Your task to perform on an android device: Search for "amazon basics triple a" on costco.com, select the first entry, and add it to the cart. Image 0: 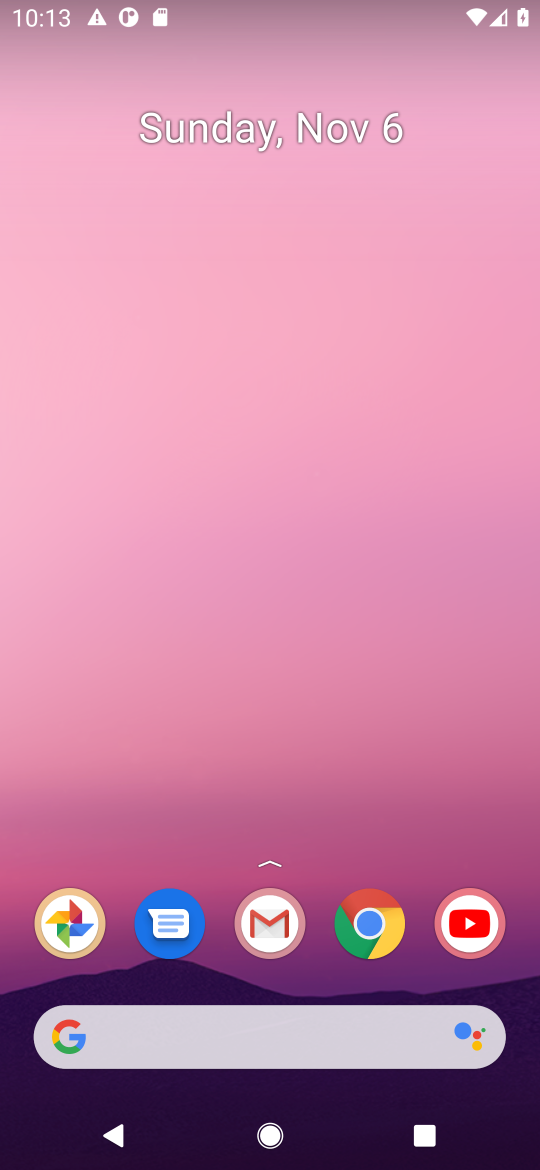
Step 0: click (377, 934)
Your task to perform on an android device: Search for "amazon basics triple a" on costco.com, select the first entry, and add it to the cart. Image 1: 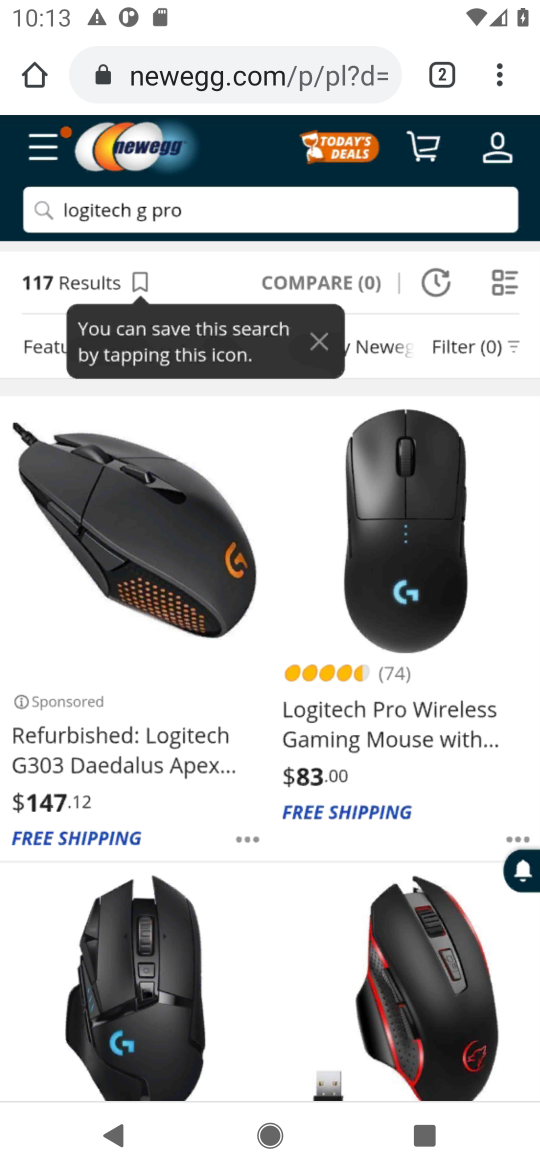
Step 1: click (200, 77)
Your task to perform on an android device: Search for "amazon basics triple a" on costco.com, select the first entry, and add it to the cart. Image 2: 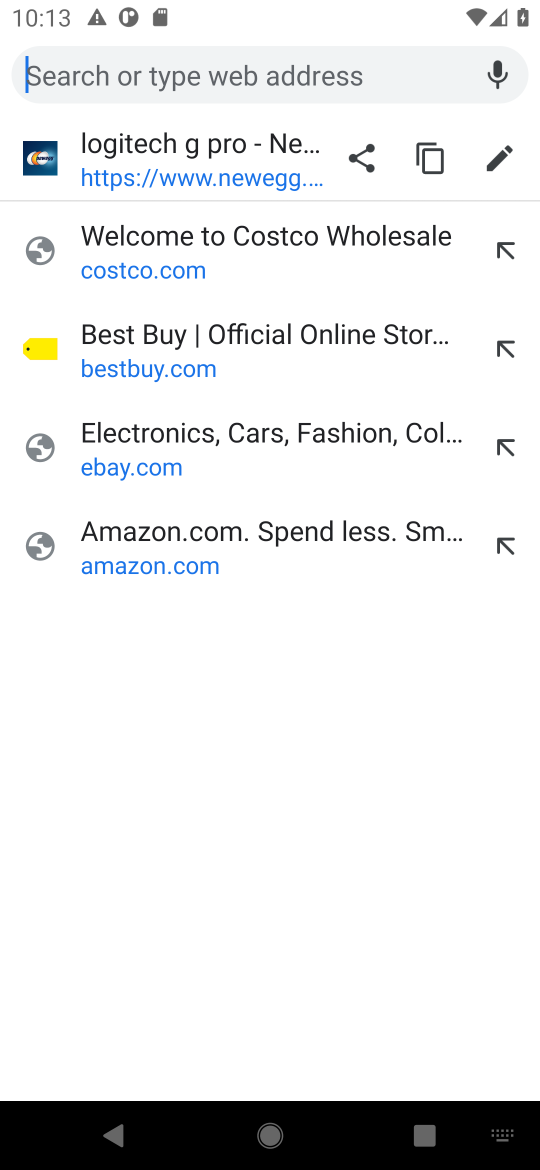
Step 2: click (143, 280)
Your task to perform on an android device: Search for "amazon basics triple a" on costco.com, select the first entry, and add it to the cart. Image 3: 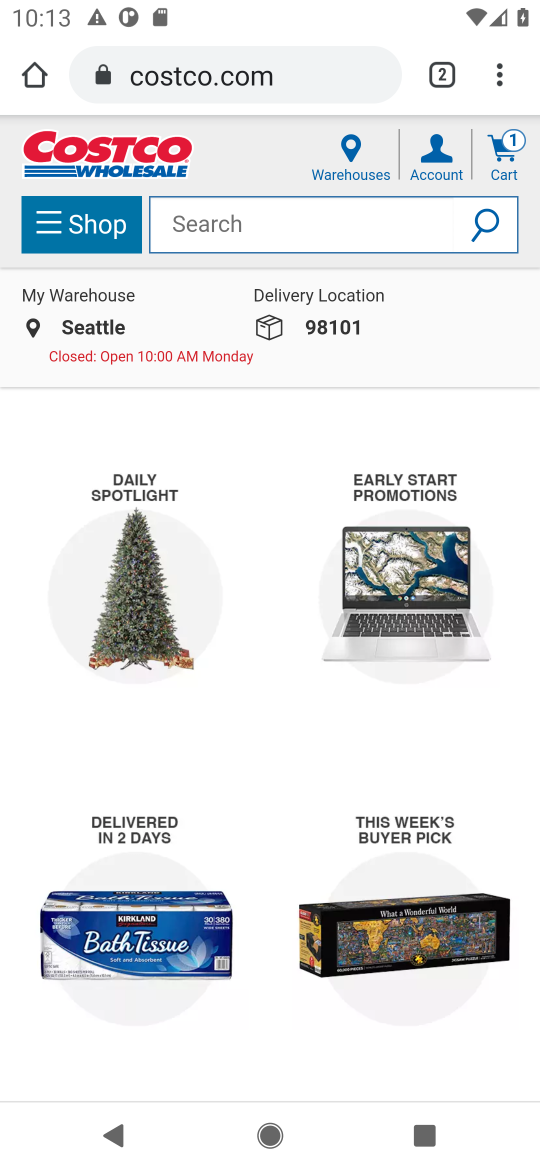
Step 3: click (305, 205)
Your task to perform on an android device: Search for "amazon basics triple a" on costco.com, select the first entry, and add it to the cart. Image 4: 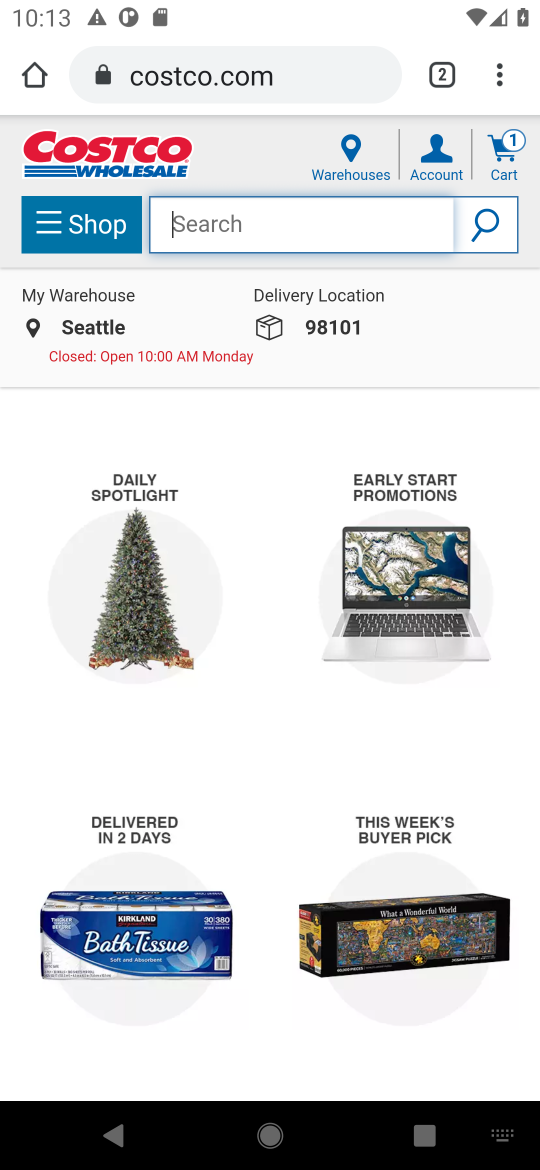
Step 4: type "amazon basics triple a"
Your task to perform on an android device: Search for "amazon basics triple a" on costco.com, select the first entry, and add it to the cart. Image 5: 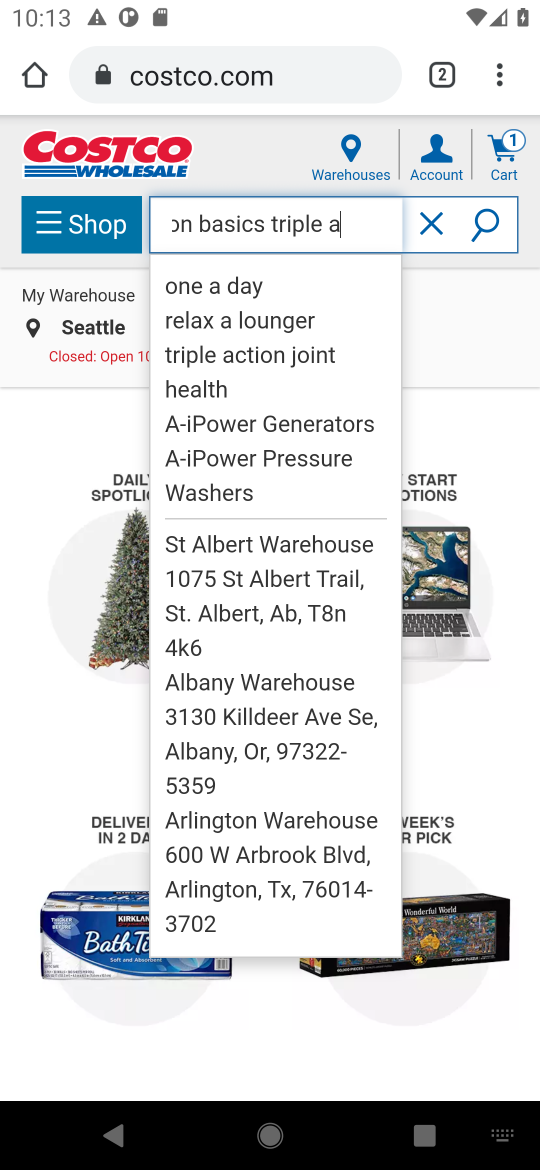
Step 5: click (482, 226)
Your task to perform on an android device: Search for "amazon basics triple a" on costco.com, select the first entry, and add it to the cart. Image 6: 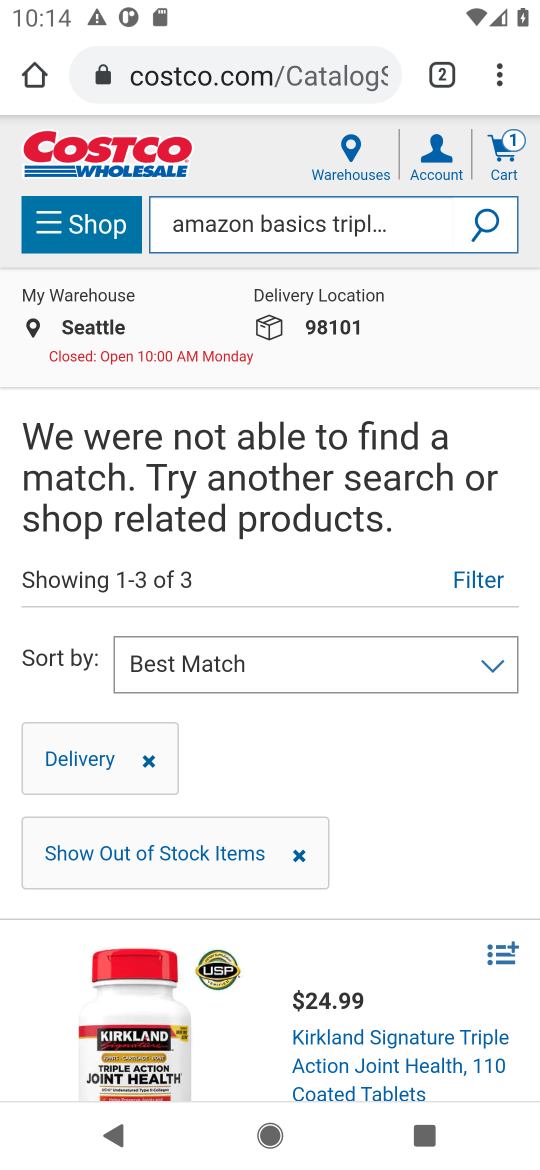
Step 6: task complete